Your task to perform on an android device: Is it going to rain tomorrow? Image 0: 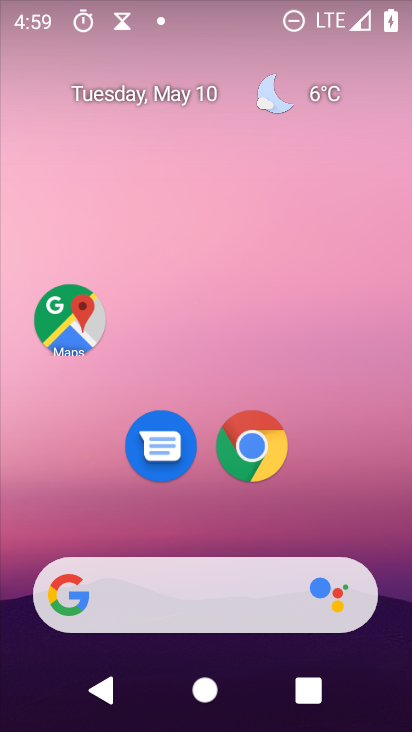
Step 0: drag from (278, 519) to (231, 110)
Your task to perform on an android device: Is it going to rain tomorrow? Image 1: 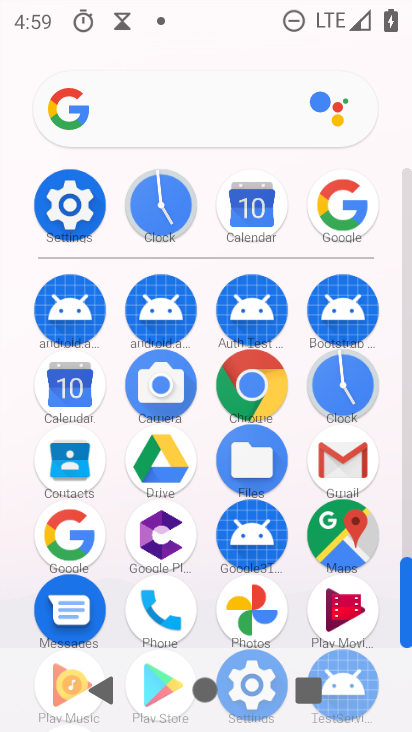
Step 1: click (59, 536)
Your task to perform on an android device: Is it going to rain tomorrow? Image 2: 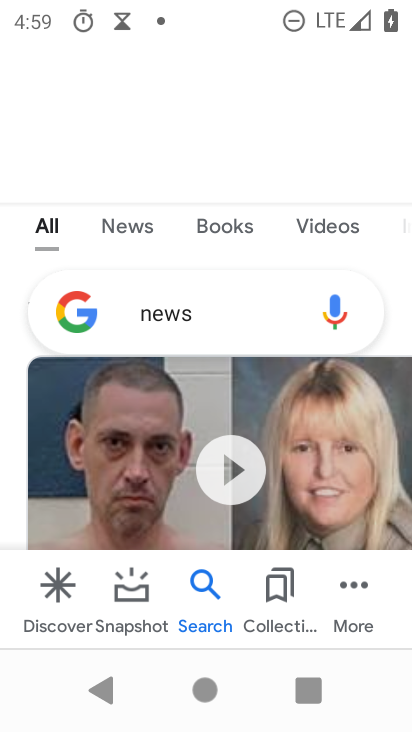
Step 2: click (215, 319)
Your task to perform on an android device: Is it going to rain tomorrow? Image 3: 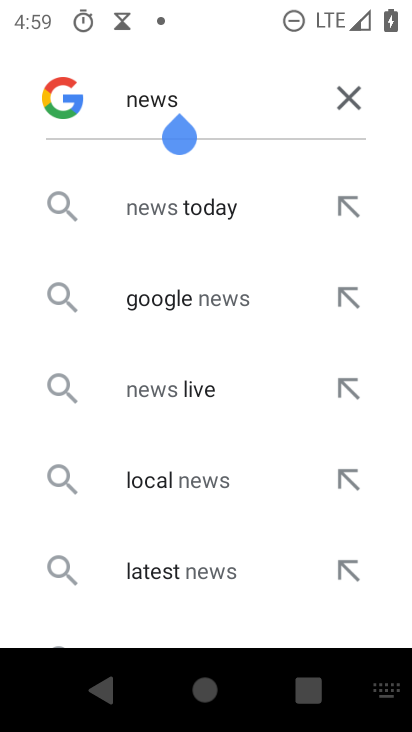
Step 3: click (343, 77)
Your task to perform on an android device: Is it going to rain tomorrow? Image 4: 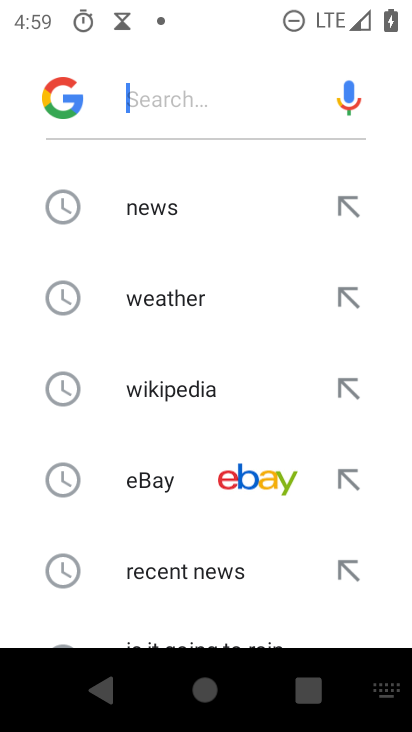
Step 4: click (169, 306)
Your task to perform on an android device: Is it going to rain tomorrow? Image 5: 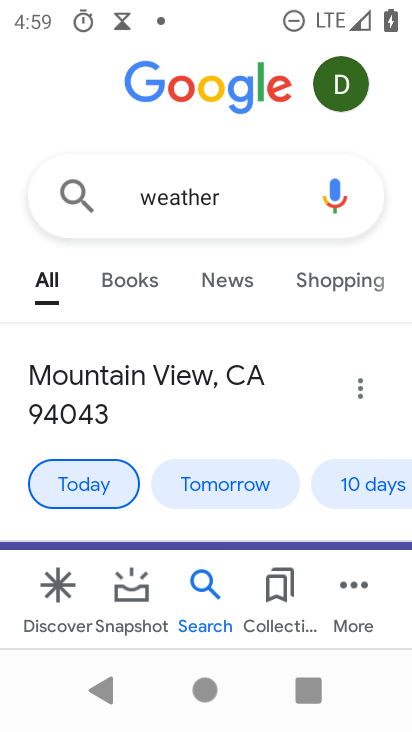
Step 5: click (234, 478)
Your task to perform on an android device: Is it going to rain tomorrow? Image 6: 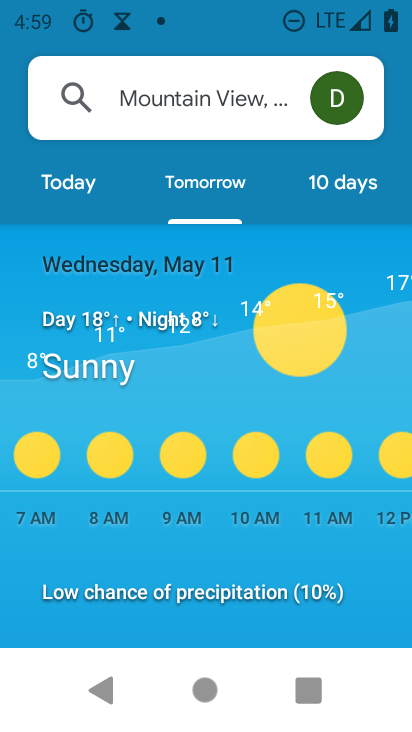
Step 6: task complete